Your task to perform on an android device: open app "AliExpress" Image 0: 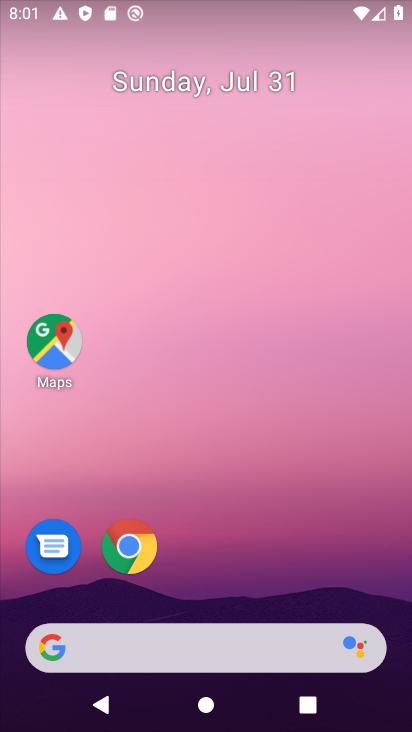
Step 0: drag from (170, 637) to (274, 153)
Your task to perform on an android device: open app "AliExpress" Image 1: 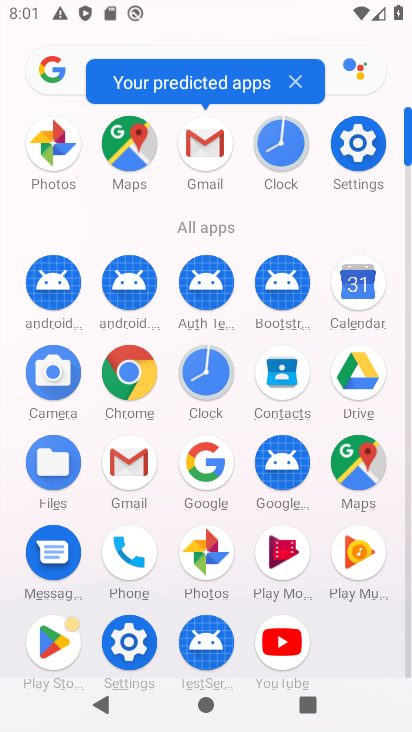
Step 1: drag from (56, 636) to (237, 384)
Your task to perform on an android device: open app "AliExpress" Image 2: 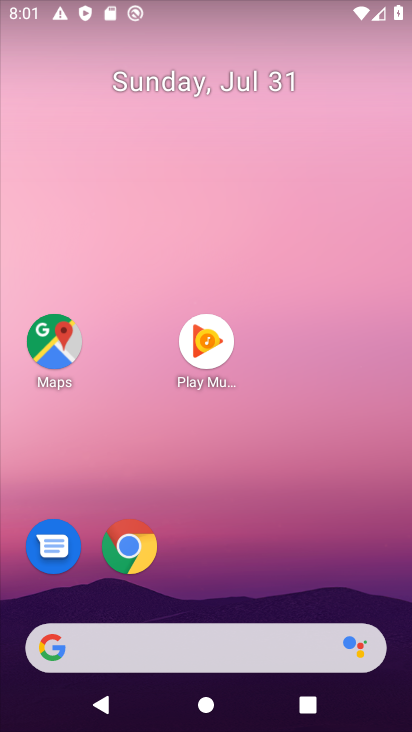
Step 2: click (206, 345)
Your task to perform on an android device: open app "AliExpress" Image 3: 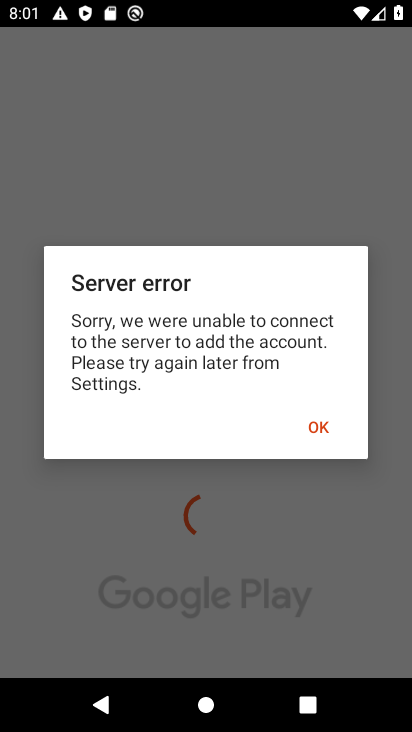
Step 3: click (320, 428)
Your task to perform on an android device: open app "AliExpress" Image 4: 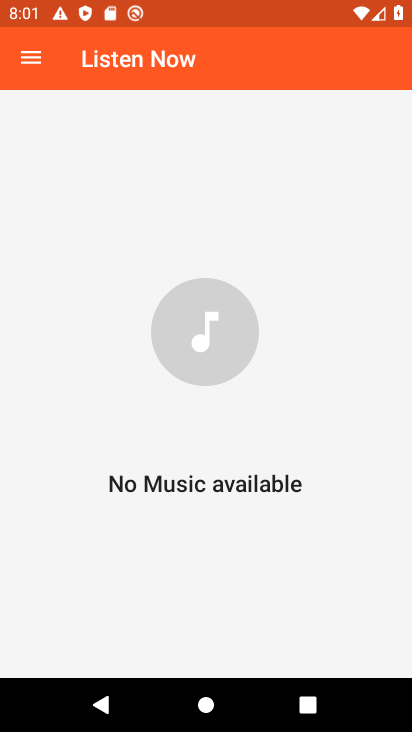
Step 4: press back button
Your task to perform on an android device: open app "AliExpress" Image 5: 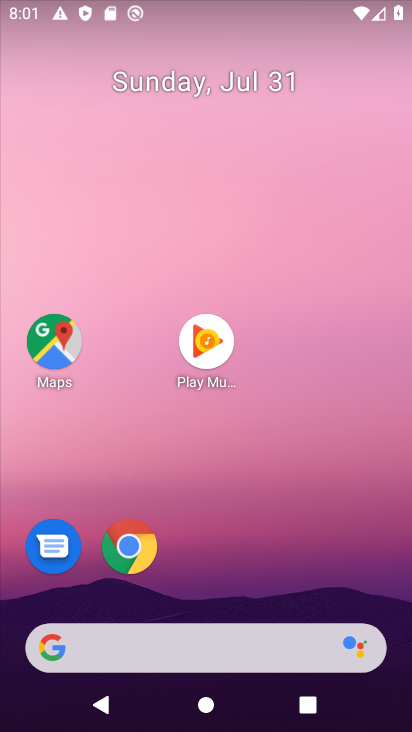
Step 5: drag from (201, 343) to (161, 58)
Your task to perform on an android device: open app "AliExpress" Image 6: 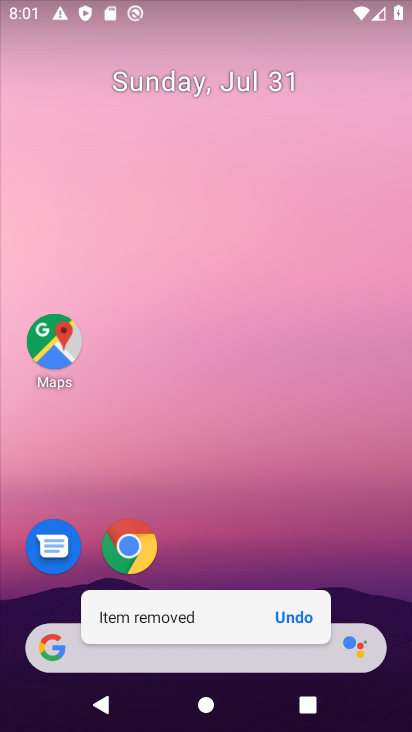
Step 6: drag from (192, 645) to (213, 150)
Your task to perform on an android device: open app "AliExpress" Image 7: 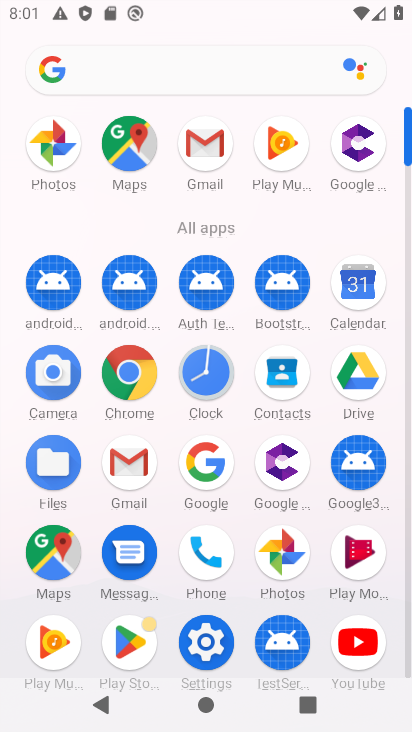
Step 7: drag from (136, 643) to (261, 347)
Your task to perform on an android device: open app "AliExpress" Image 8: 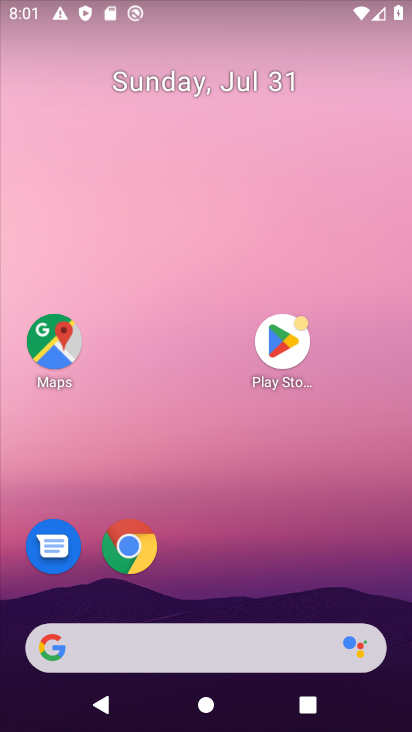
Step 8: click (273, 346)
Your task to perform on an android device: open app "AliExpress" Image 9: 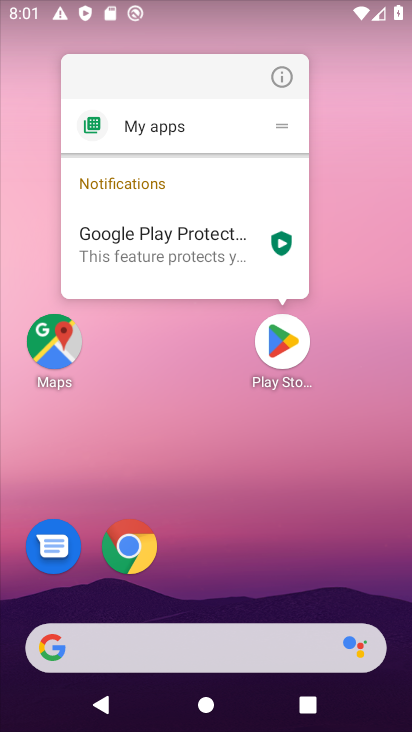
Step 9: click (292, 336)
Your task to perform on an android device: open app "AliExpress" Image 10: 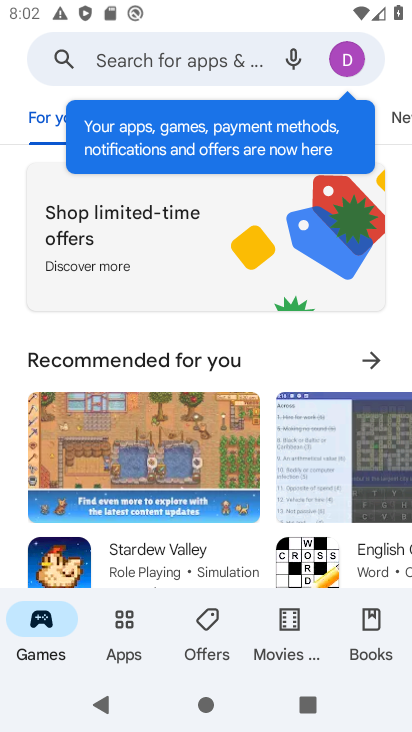
Step 10: click (211, 57)
Your task to perform on an android device: open app "AliExpress" Image 11: 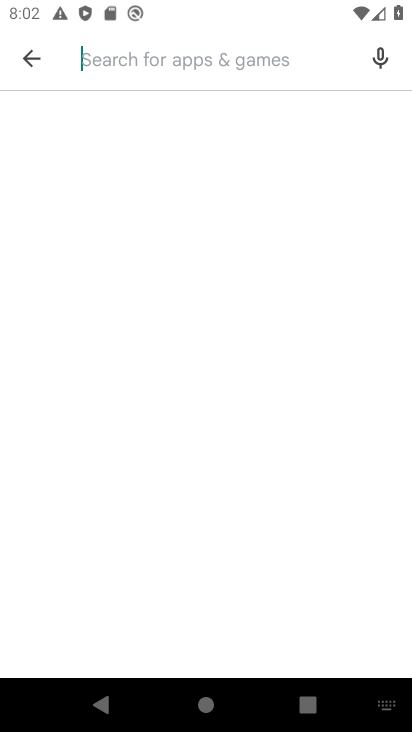
Step 11: type "AliExpress"
Your task to perform on an android device: open app "AliExpress" Image 12: 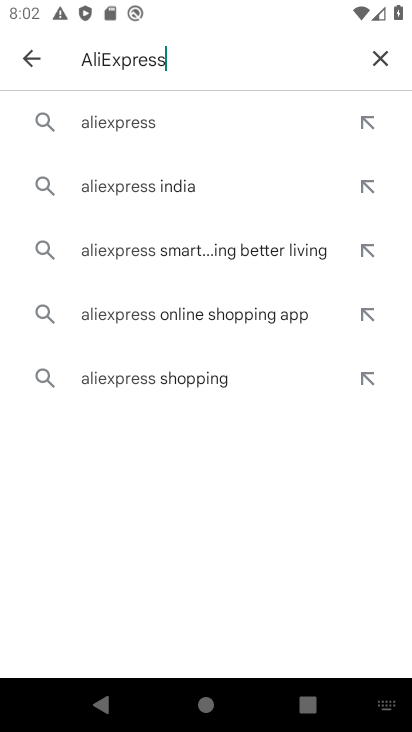
Step 12: click (126, 115)
Your task to perform on an android device: open app "AliExpress" Image 13: 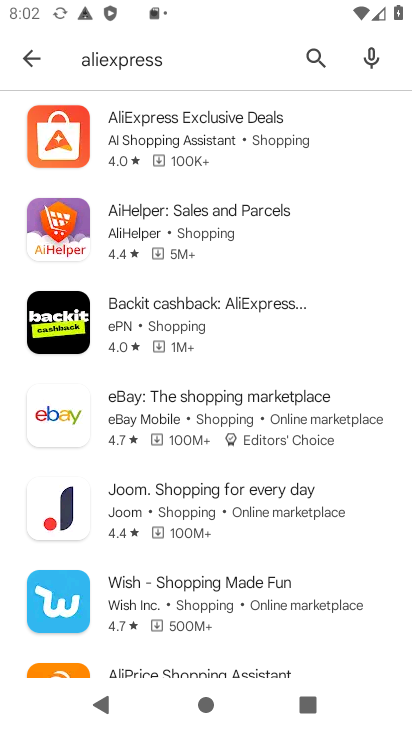
Step 13: click (198, 139)
Your task to perform on an android device: open app "AliExpress" Image 14: 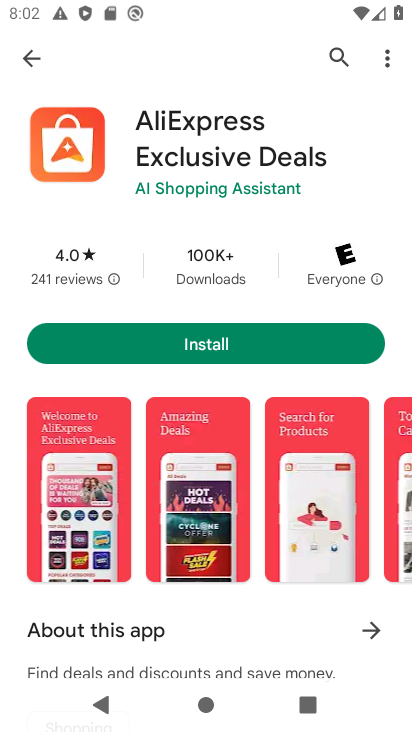
Step 14: task complete